Your task to perform on an android device: Search for the best burger restaurants on Maps Image 0: 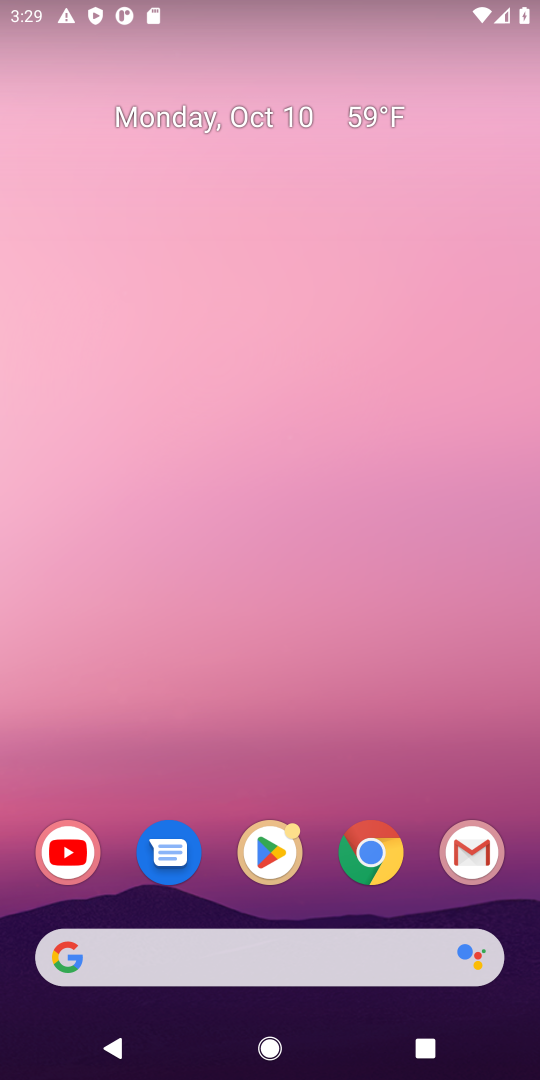
Step 0: drag from (399, 899) to (296, 502)
Your task to perform on an android device: Search for the best burger restaurants on Maps Image 1: 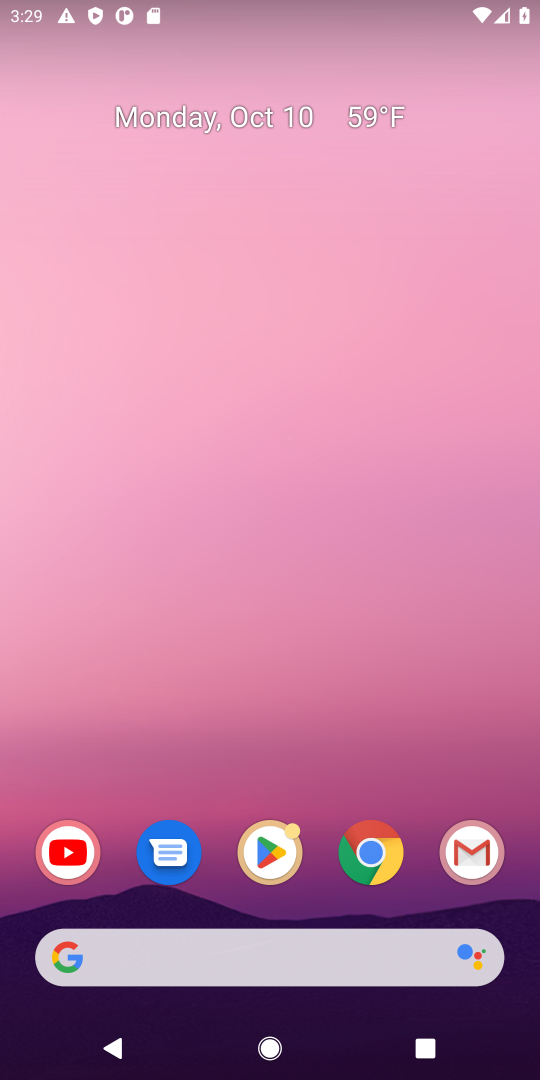
Step 1: drag from (350, 792) to (242, 389)
Your task to perform on an android device: Search for the best burger restaurants on Maps Image 2: 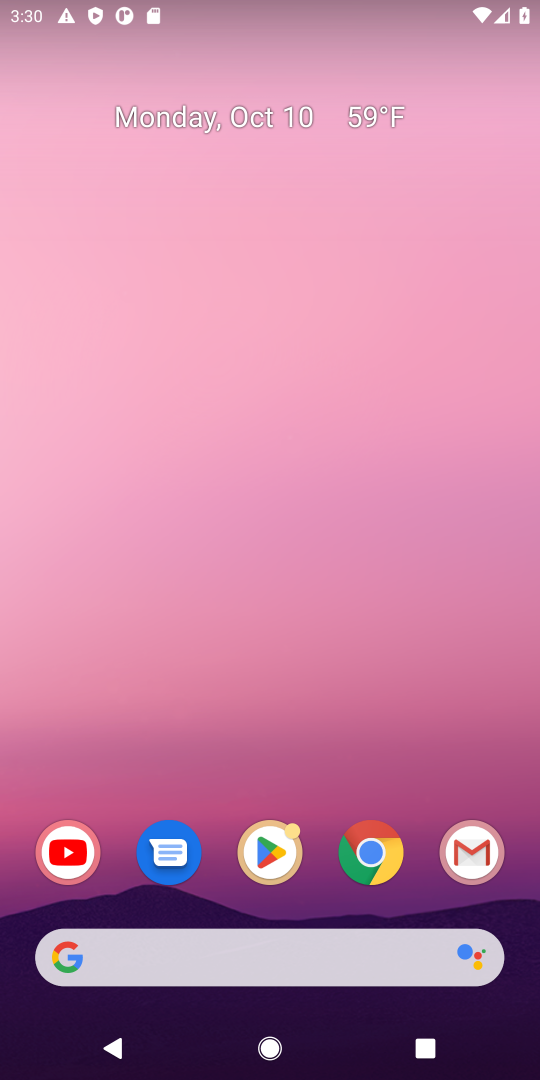
Step 2: drag from (325, 809) to (246, 216)
Your task to perform on an android device: Search for the best burger restaurants on Maps Image 3: 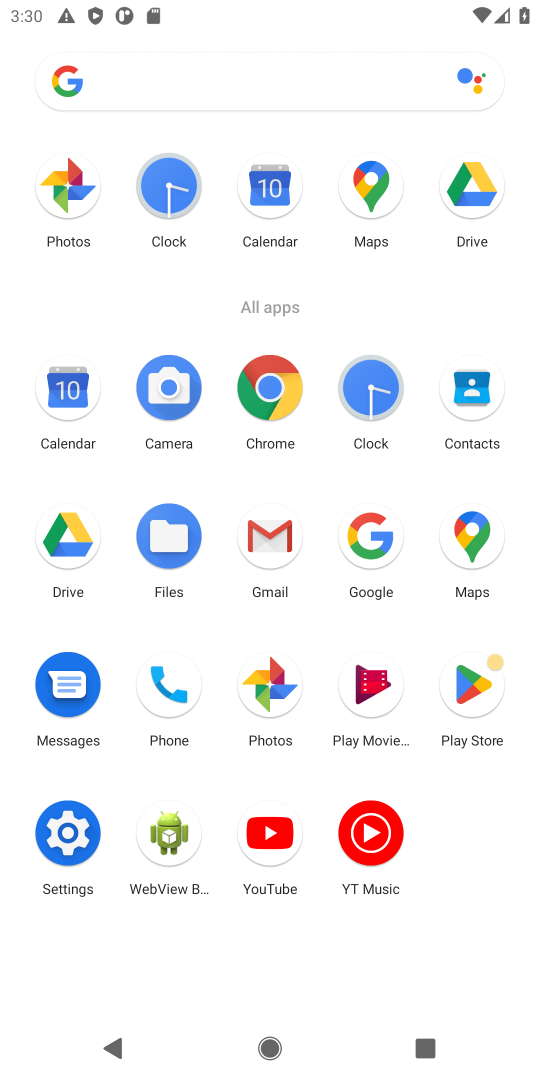
Step 3: click (486, 548)
Your task to perform on an android device: Search for the best burger restaurants on Maps Image 4: 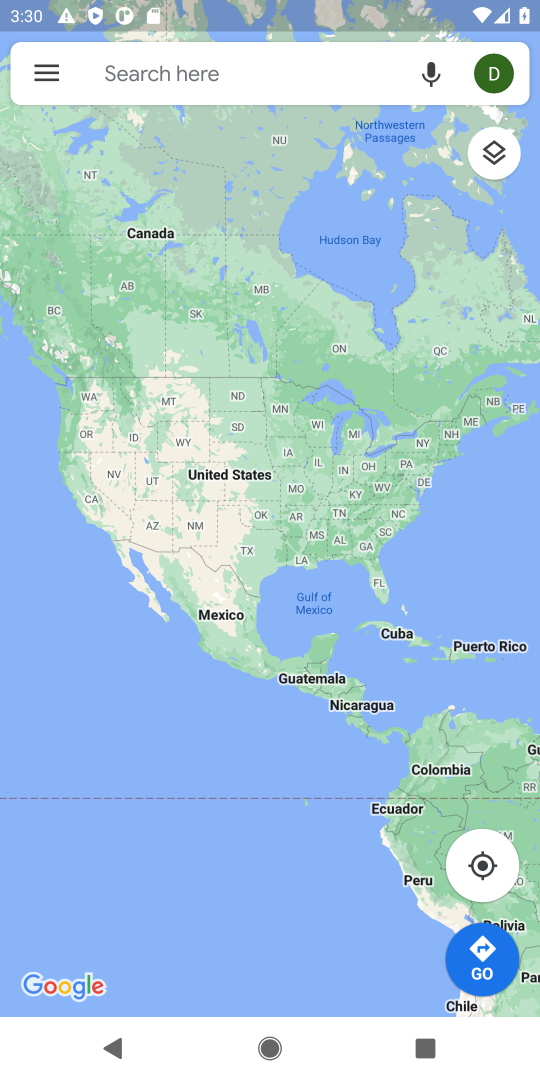
Step 4: click (154, 60)
Your task to perform on an android device: Search for the best burger restaurants on Maps Image 5: 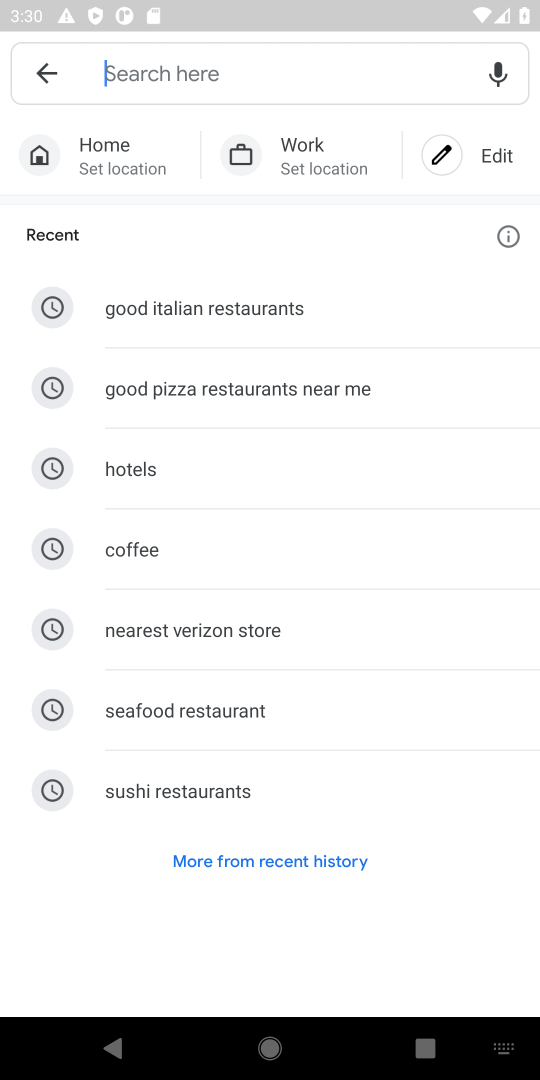
Step 5: click (201, 74)
Your task to perform on an android device: Search for the best burger restaurants on Maps Image 6: 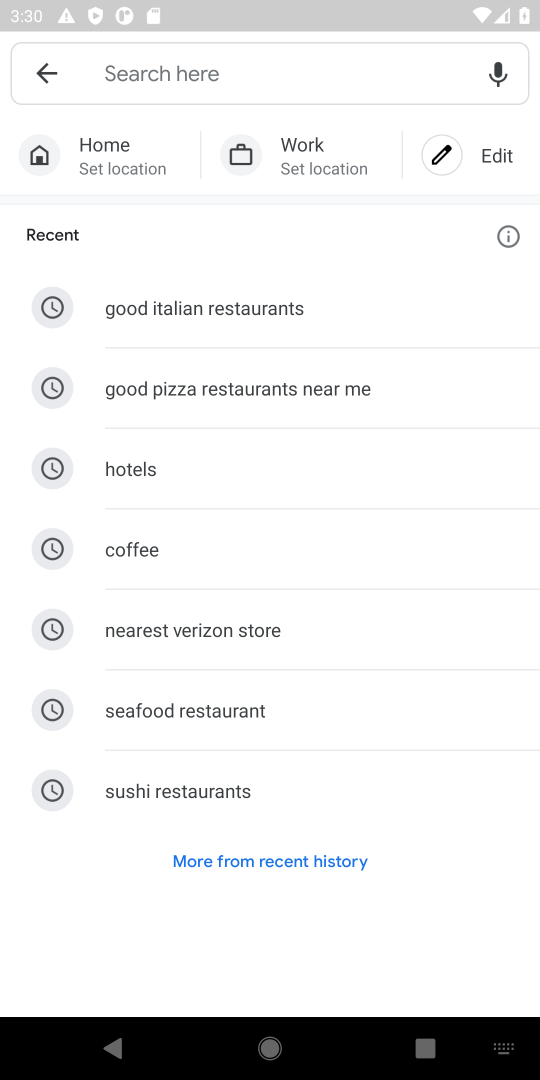
Step 6: type "best burger restaurants"
Your task to perform on an android device: Search for the best burger restaurants on Maps Image 7: 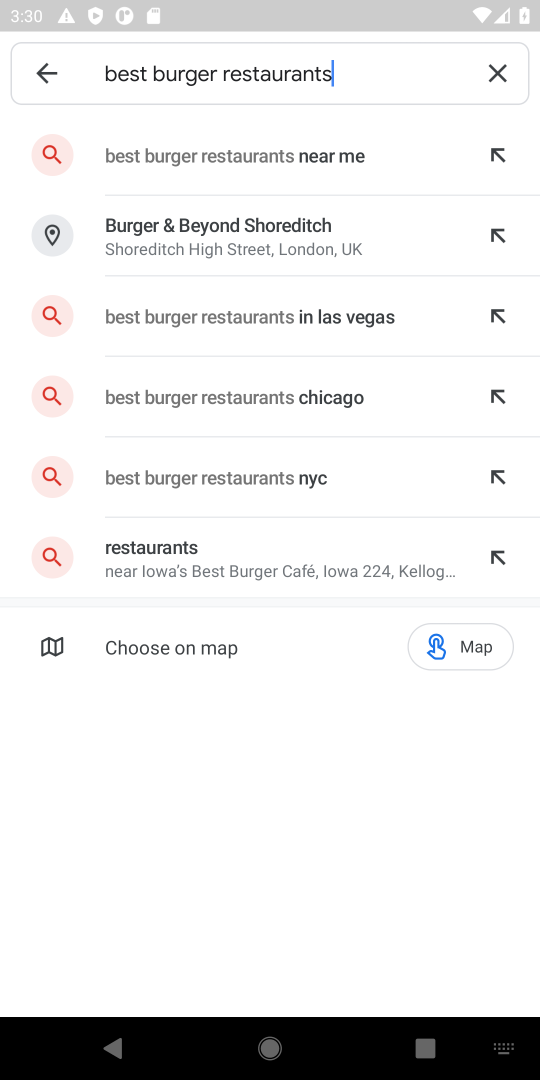
Step 7: type ""
Your task to perform on an android device: Search for the best burger restaurants on Maps Image 8: 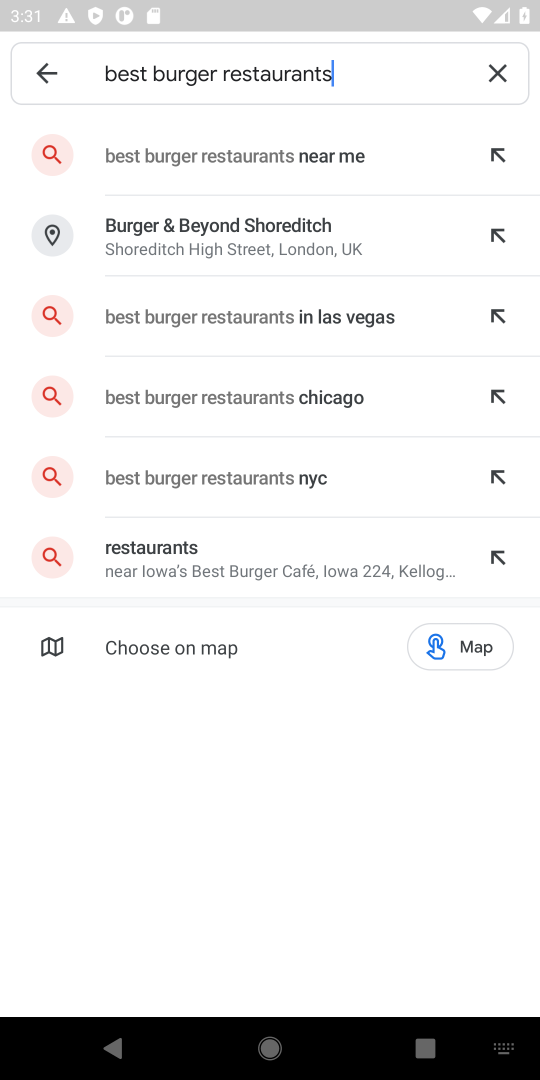
Step 8: click (248, 169)
Your task to perform on an android device: Search for the best burger restaurants on Maps Image 9: 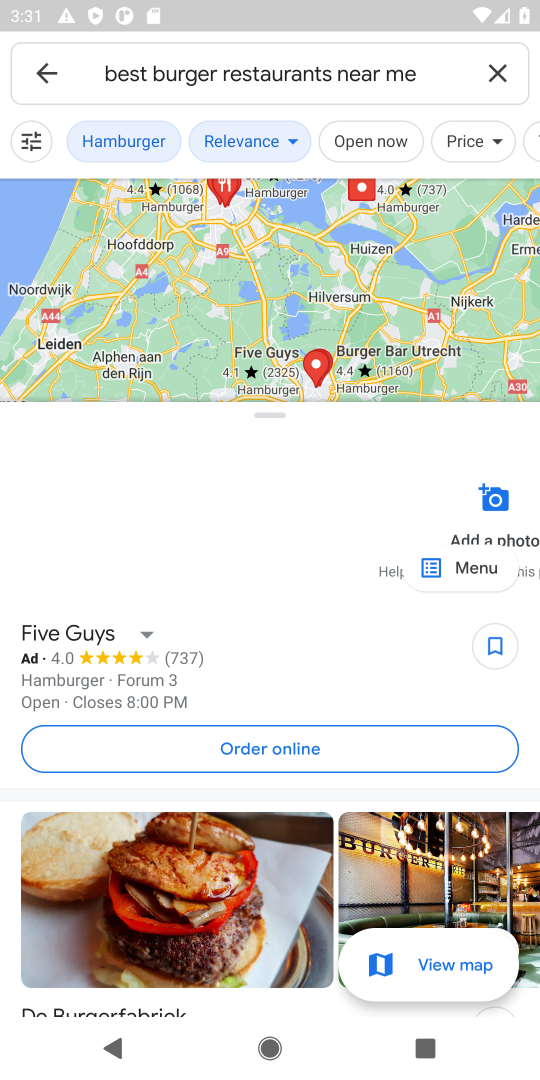
Step 9: task complete